Your task to perform on an android device: Open location settings Image 0: 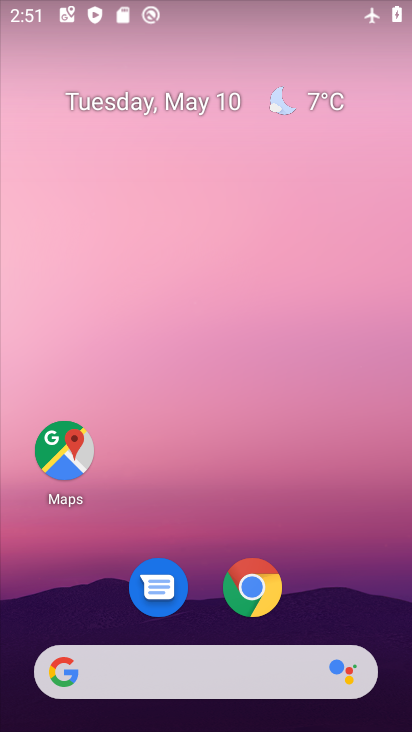
Step 0: drag from (327, 637) to (281, 164)
Your task to perform on an android device: Open location settings Image 1: 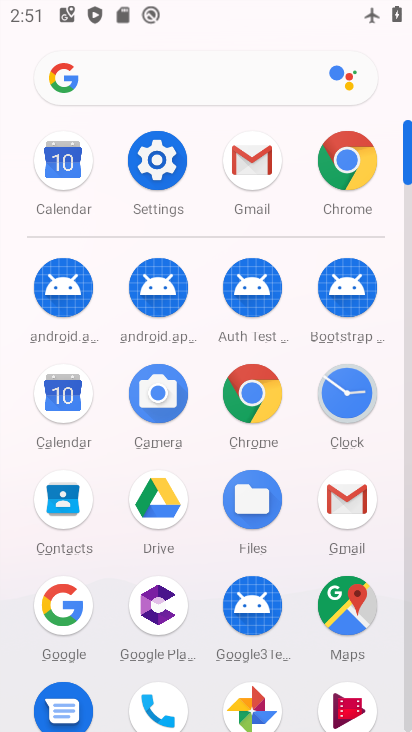
Step 1: click (156, 166)
Your task to perform on an android device: Open location settings Image 2: 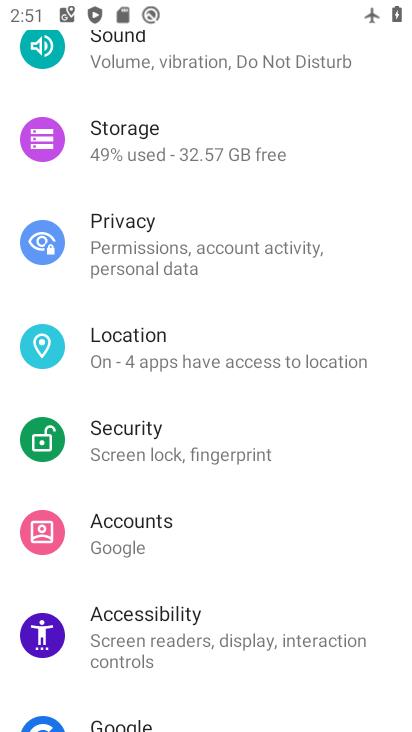
Step 2: click (156, 370)
Your task to perform on an android device: Open location settings Image 3: 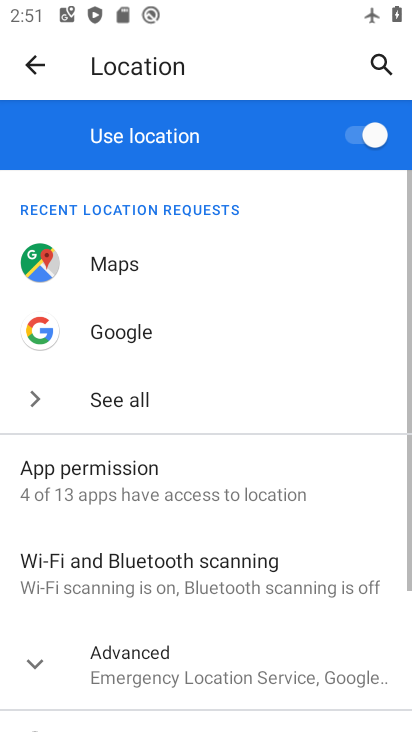
Step 3: task complete